Your task to perform on an android device: turn off airplane mode Image 0: 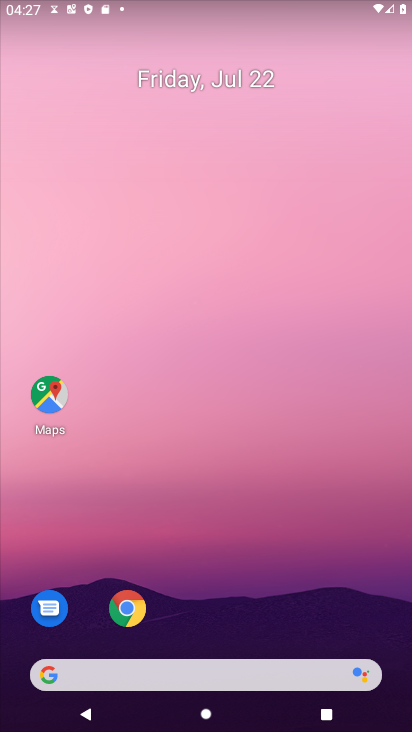
Step 0: drag from (226, 720) to (250, 106)
Your task to perform on an android device: turn off airplane mode Image 1: 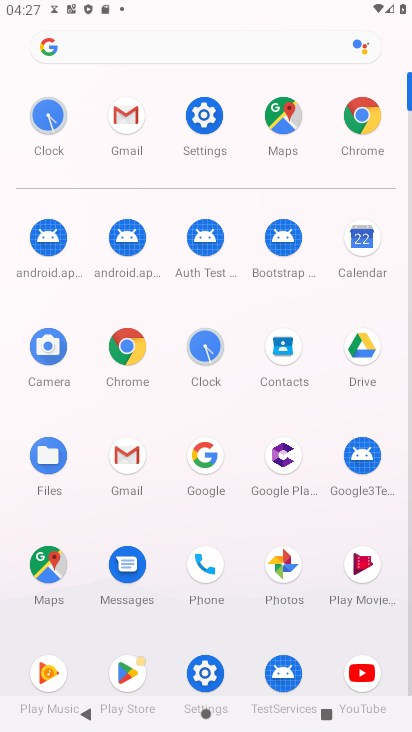
Step 1: click (210, 108)
Your task to perform on an android device: turn off airplane mode Image 2: 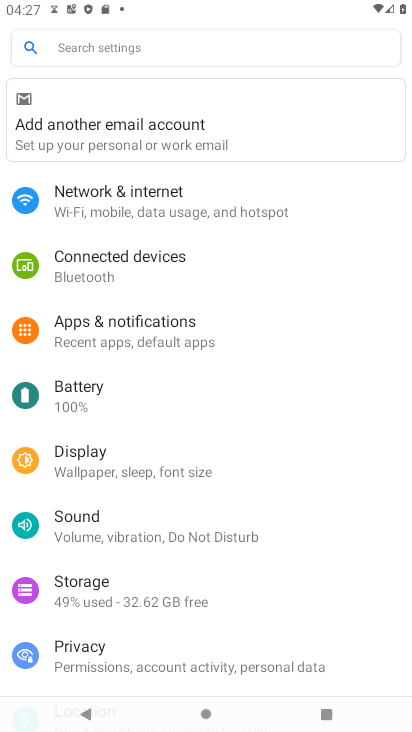
Step 2: click (102, 202)
Your task to perform on an android device: turn off airplane mode Image 3: 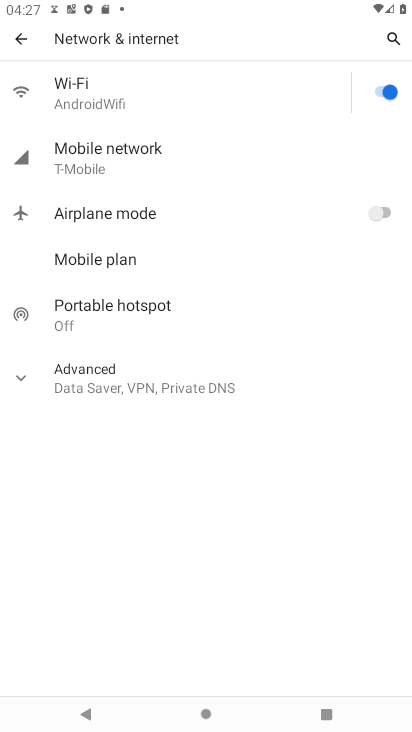
Step 3: task complete